Your task to perform on an android device: turn off translation in the chrome app Image 0: 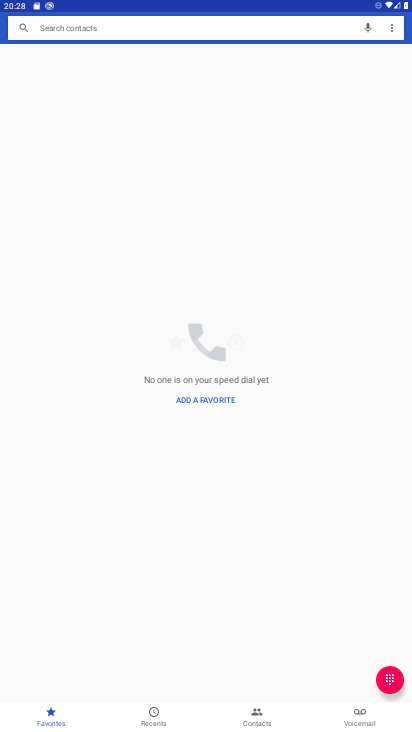
Step 0: press home button
Your task to perform on an android device: turn off translation in the chrome app Image 1: 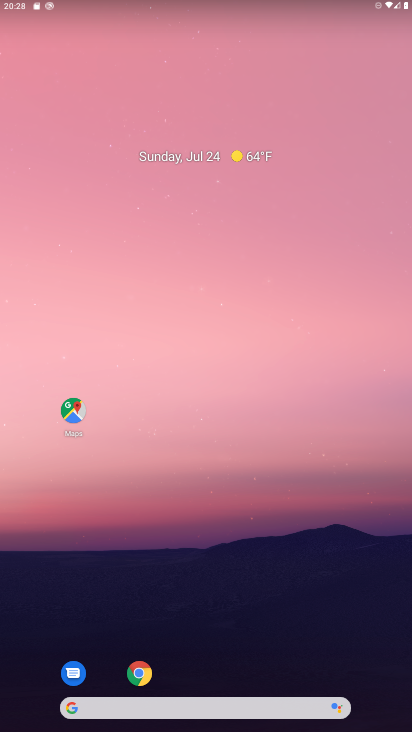
Step 1: click (146, 670)
Your task to perform on an android device: turn off translation in the chrome app Image 2: 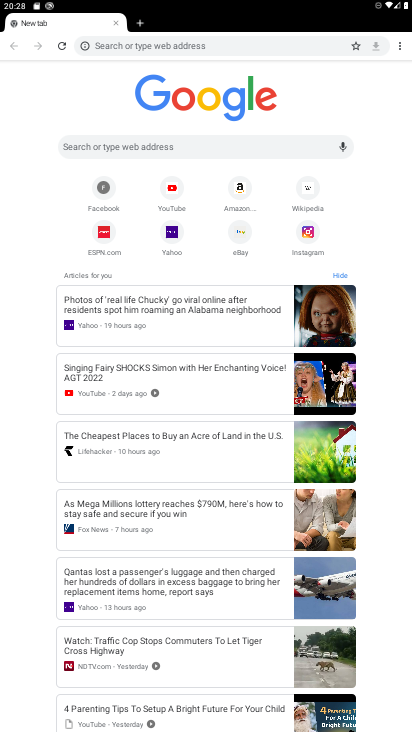
Step 2: click (401, 42)
Your task to perform on an android device: turn off translation in the chrome app Image 3: 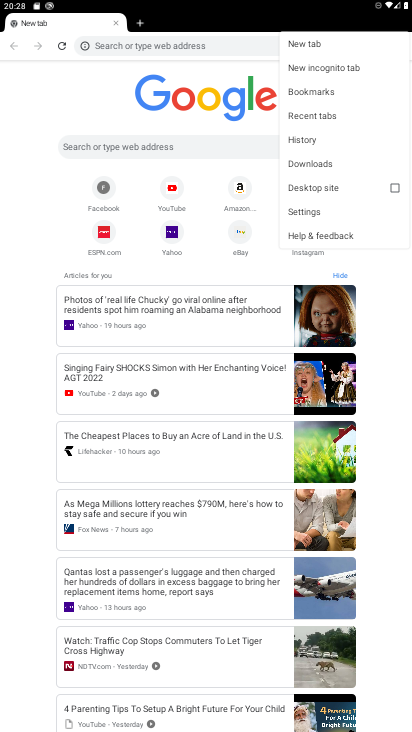
Step 3: click (335, 208)
Your task to perform on an android device: turn off translation in the chrome app Image 4: 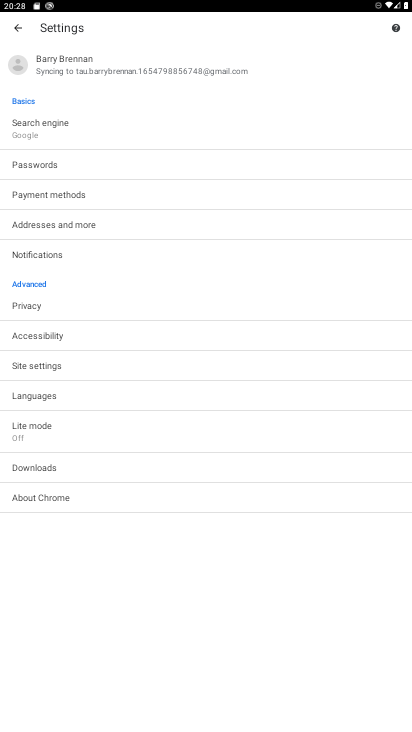
Step 4: click (91, 396)
Your task to perform on an android device: turn off translation in the chrome app Image 5: 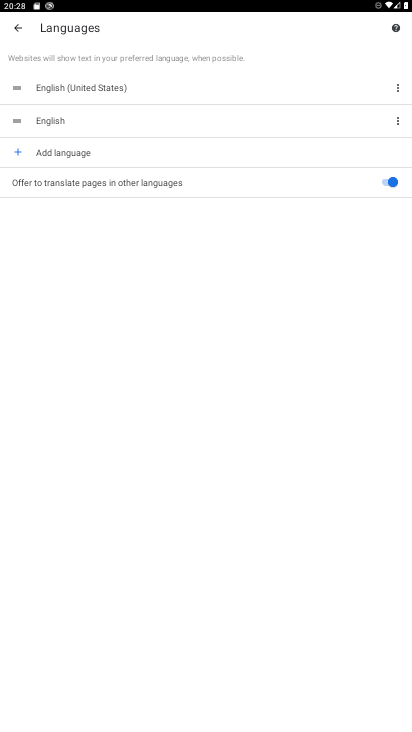
Step 5: click (389, 180)
Your task to perform on an android device: turn off translation in the chrome app Image 6: 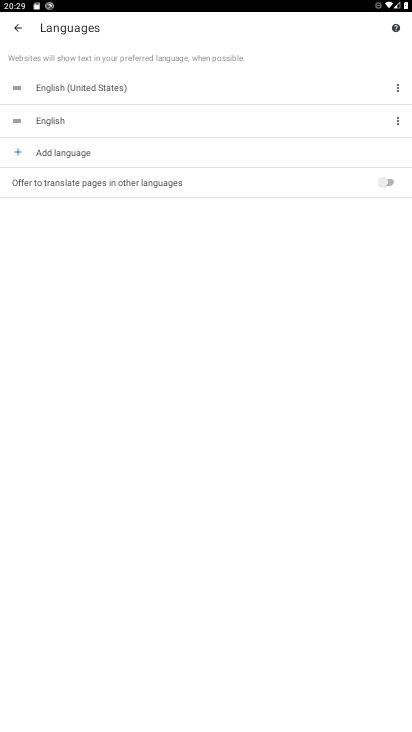
Step 6: task complete